Your task to perform on an android device: turn off translation in the chrome app Image 0: 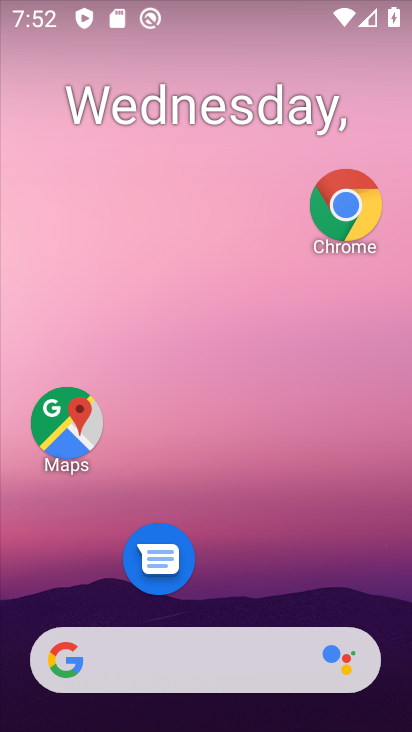
Step 0: drag from (205, 595) to (208, 199)
Your task to perform on an android device: turn off translation in the chrome app Image 1: 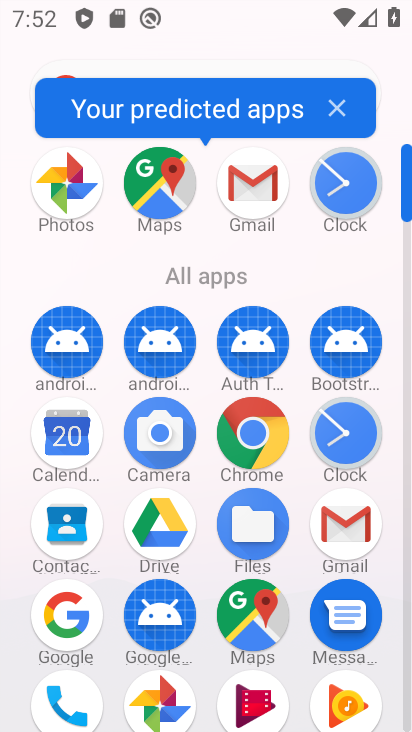
Step 1: click (249, 437)
Your task to perform on an android device: turn off translation in the chrome app Image 2: 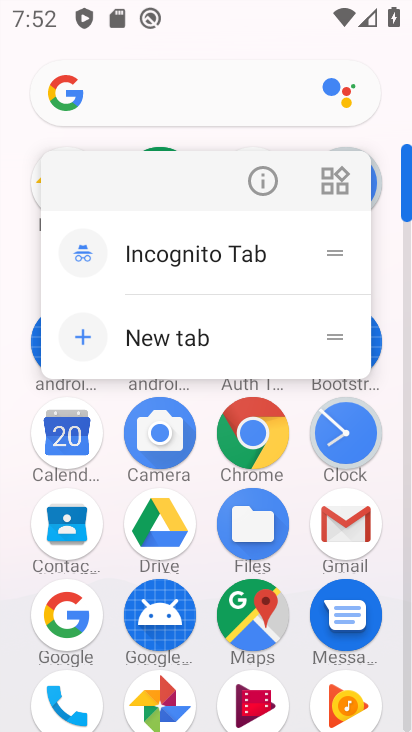
Step 2: click (263, 184)
Your task to perform on an android device: turn off translation in the chrome app Image 3: 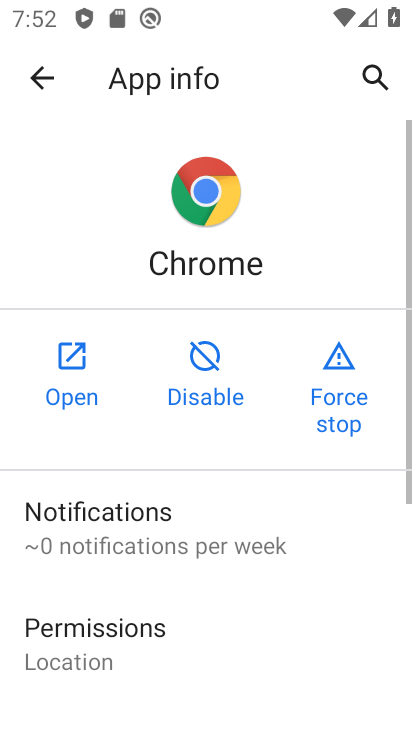
Step 3: click (71, 398)
Your task to perform on an android device: turn off translation in the chrome app Image 4: 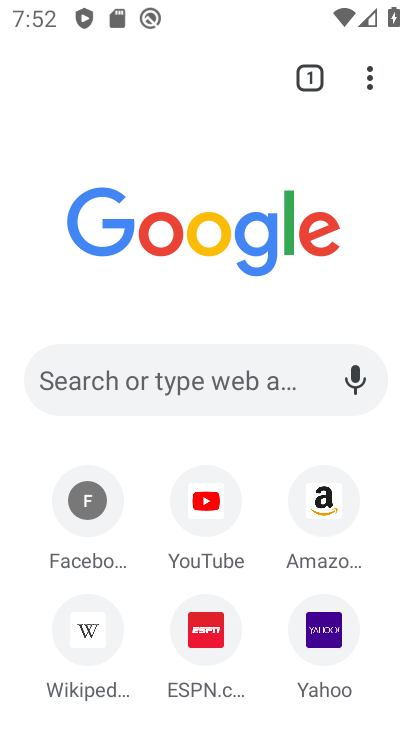
Step 4: click (368, 79)
Your task to perform on an android device: turn off translation in the chrome app Image 5: 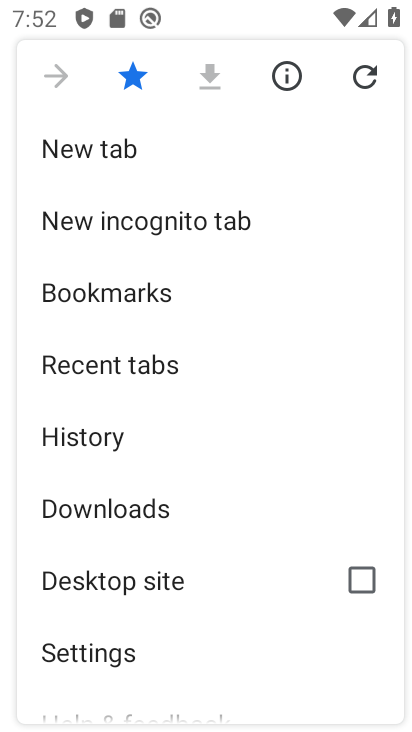
Step 5: drag from (129, 680) to (292, 285)
Your task to perform on an android device: turn off translation in the chrome app Image 6: 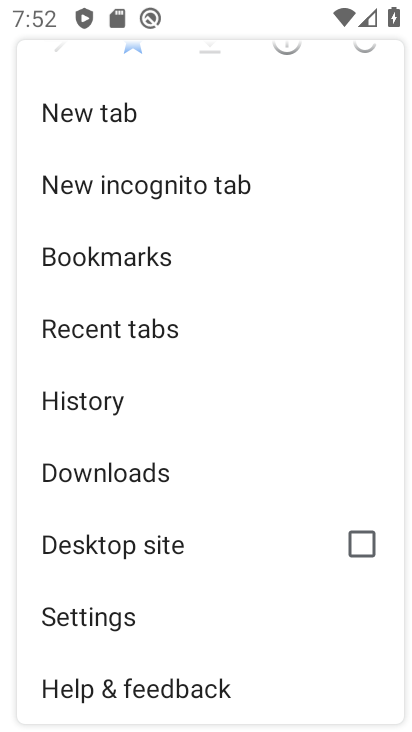
Step 6: click (129, 615)
Your task to perform on an android device: turn off translation in the chrome app Image 7: 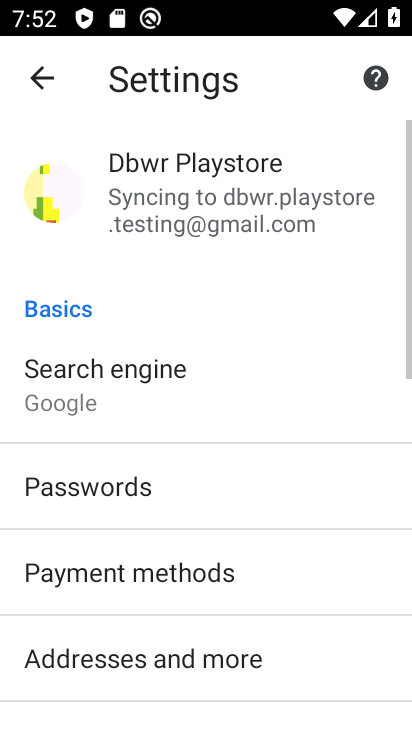
Step 7: drag from (213, 625) to (289, 116)
Your task to perform on an android device: turn off translation in the chrome app Image 8: 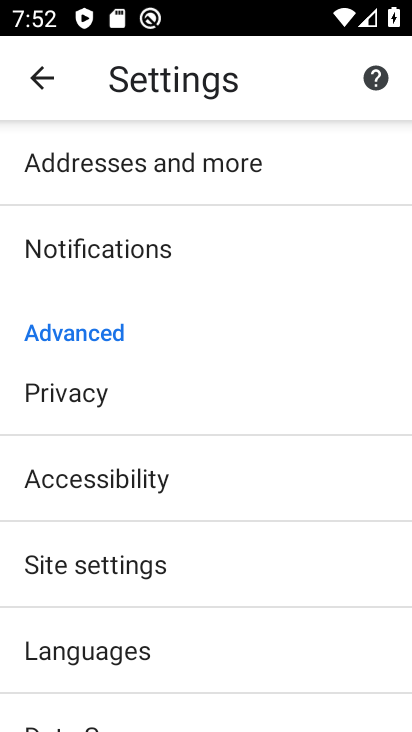
Step 8: drag from (118, 673) to (194, 369)
Your task to perform on an android device: turn off translation in the chrome app Image 9: 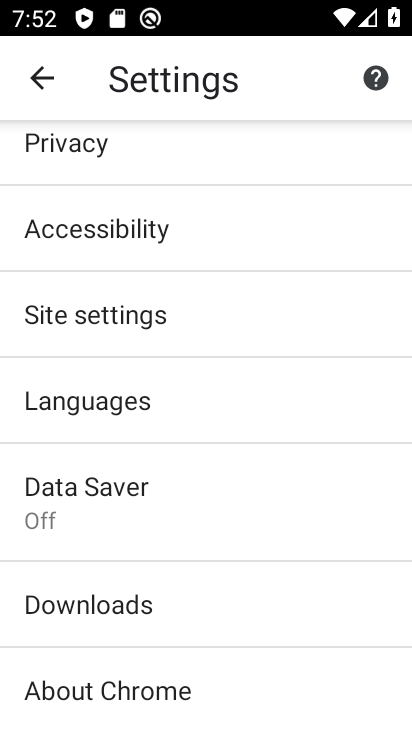
Step 9: click (161, 405)
Your task to perform on an android device: turn off translation in the chrome app Image 10: 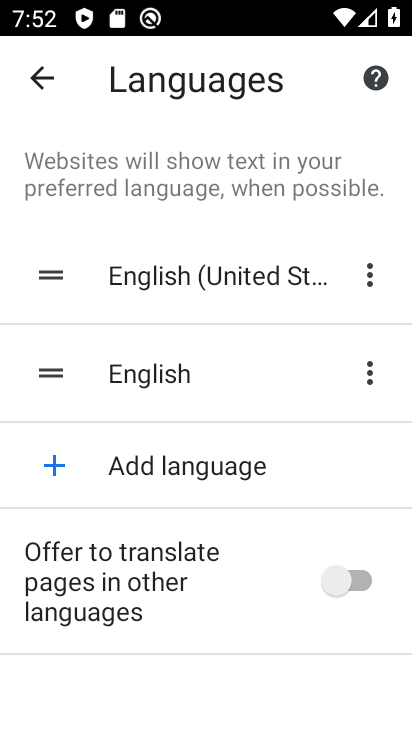
Step 10: task complete